Your task to perform on an android device: Open calendar and show me the fourth week of next month Image 0: 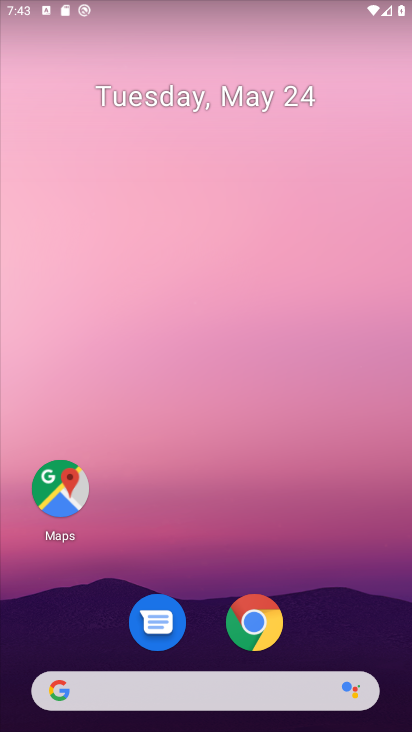
Step 0: press home button
Your task to perform on an android device: Open calendar and show me the fourth week of next month Image 1: 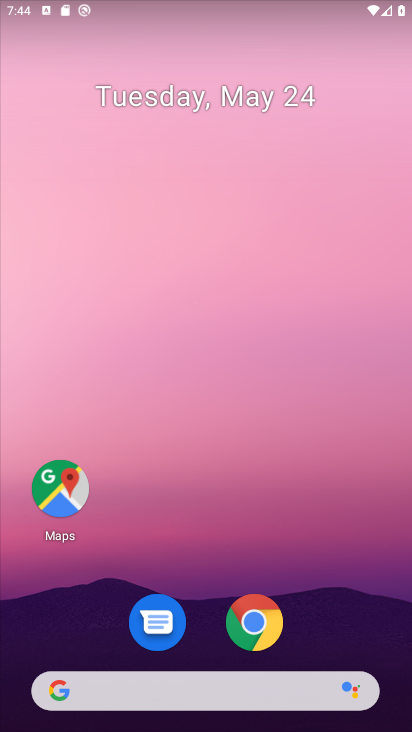
Step 1: drag from (188, 684) to (204, 92)
Your task to perform on an android device: Open calendar and show me the fourth week of next month Image 2: 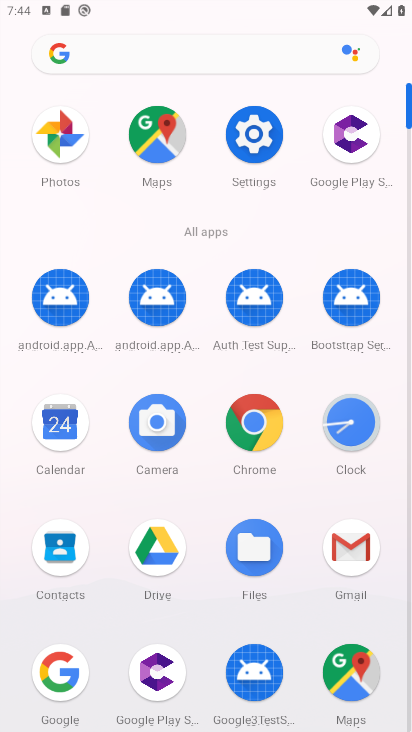
Step 2: click (76, 429)
Your task to perform on an android device: Open calendar and show me the fourth week of next month Image 3: 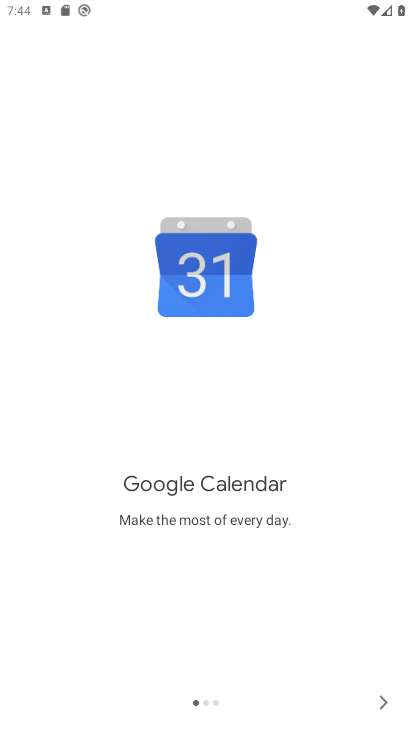
Step 3: click (382, 703)
Your task to perform on an android device: Open calendar and show me the fourth week of next month Image 4: 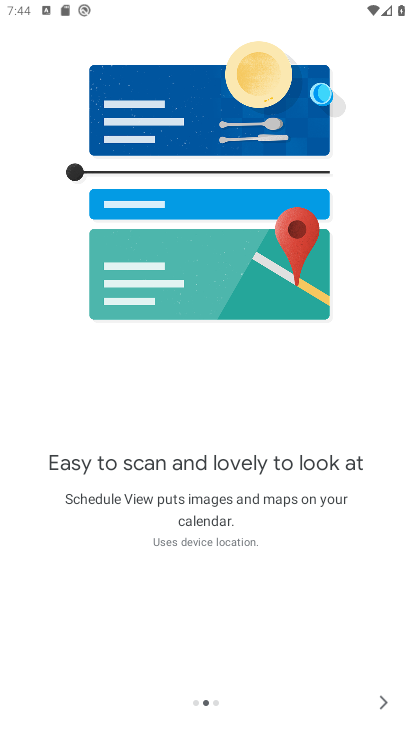
Step 4: click (381, 700)
Your task to perform on an android device: Open calendar and show me the fourth week of next month Image 5: 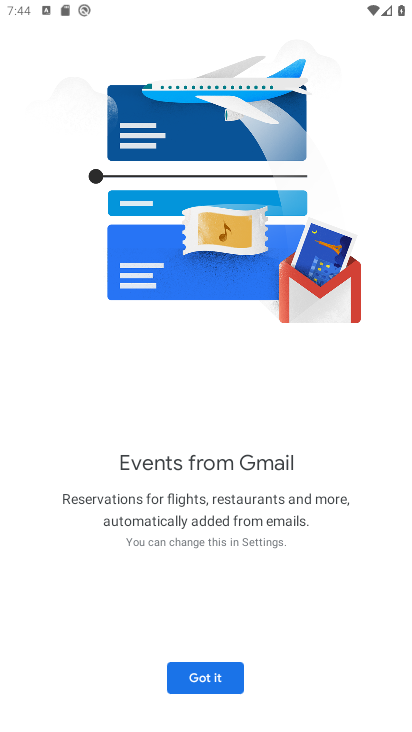
Step 5: click (226, 670)
Your task to perform on an android device: Open calendar and show me the fourth week of next month Image 6: 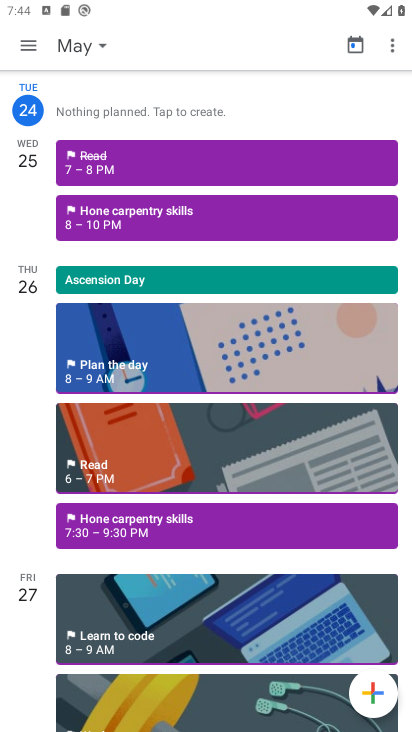
Step 6: click (22, 50)
Your task to perform on an android device: Open calendar and show me the fourth week of next month Image 7: 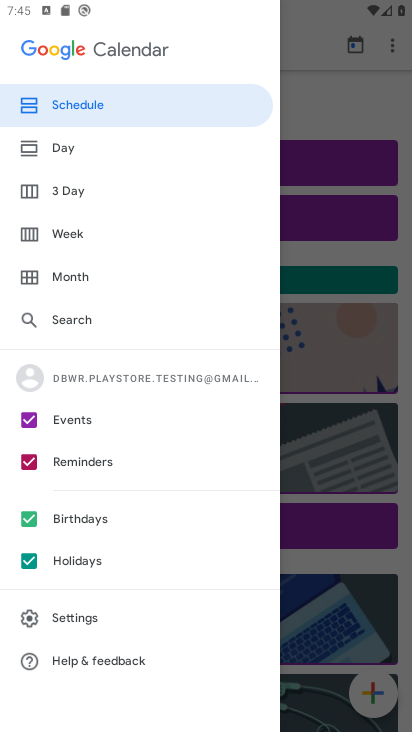
Step 7: click (84, 273)
Your task to perform on an android device: Open calendar and show me the fourth week of next month Image 8: 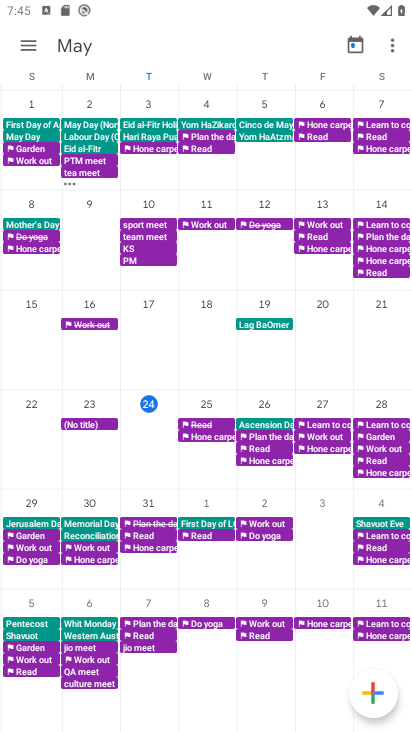
Step 8: drag from (320, 357) to (0, 365)
Your task to perform on an android device: Open calendar and show me the fourth week of next month Image 9: 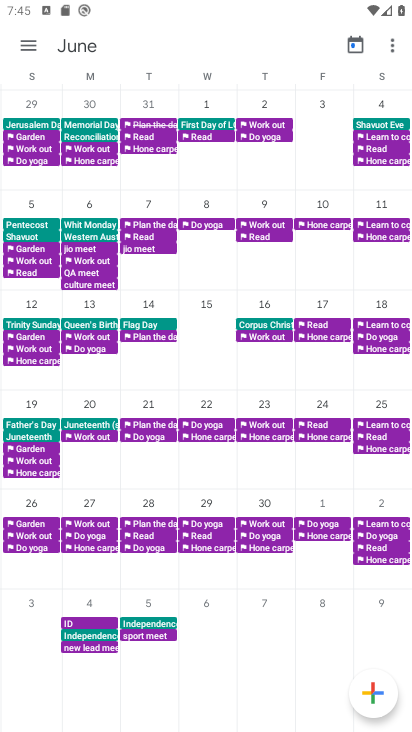
Step 9: click (92, 415)
Your task to perform on an android device: Open calendar and show me the fourth week of next month Image 10: 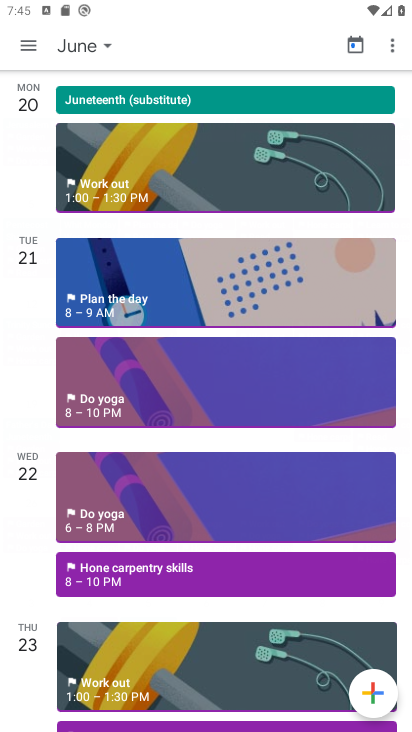
Step 10: task complete